Your task to perform on an android device: Clear the shopping cart on walmart.com. Add "logitech g910" to the cart on walmart.com Image 0: 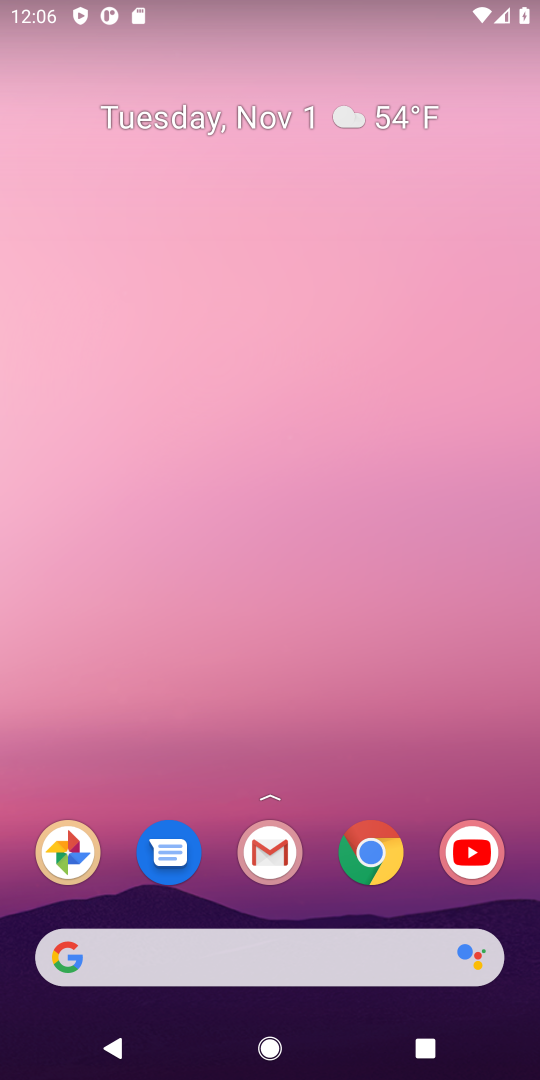
Step 0: click (374, 862)
Your task to perform on an android device: Clear the shopping cart on walmart.com. Add "logitech g910" to the cart on walmart.com Image 1: 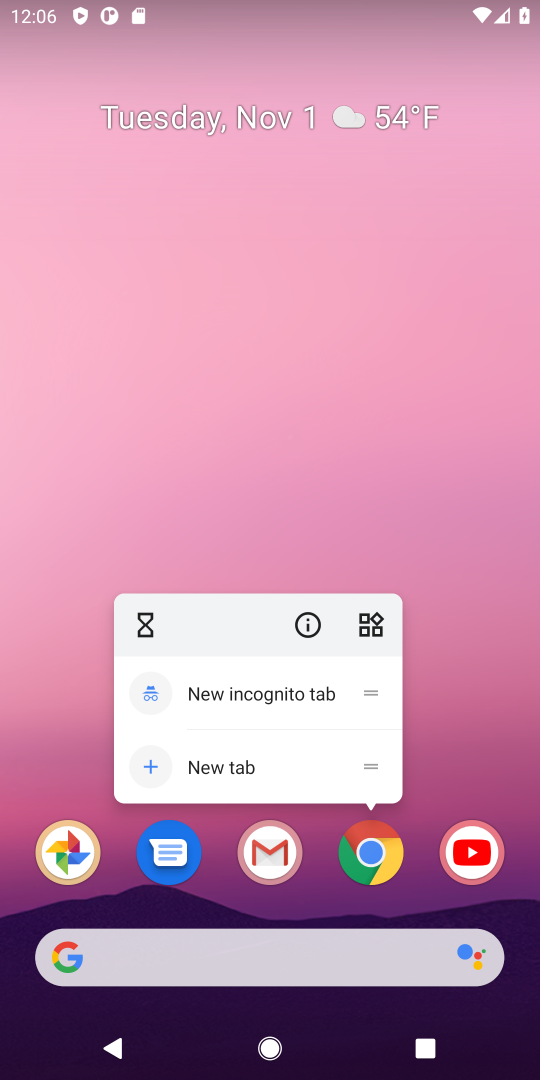
Step 1: click (379, 860)
Your task to perform on an android device: Clear the shopping cart on walmart.com. Add "logitech g910" to the cart on walmart.com Image 2: 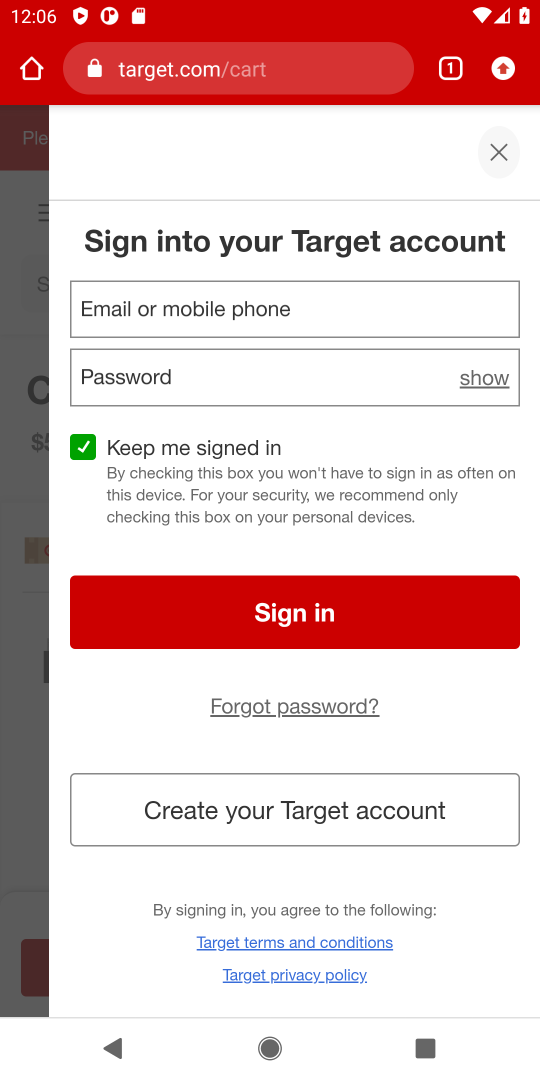
Step 2: click (224, 72)
Your task to perform on an android device: Clear the shopping cart on walmart.com. Add "logitech g910" to the cart on walmart.com Image 3: 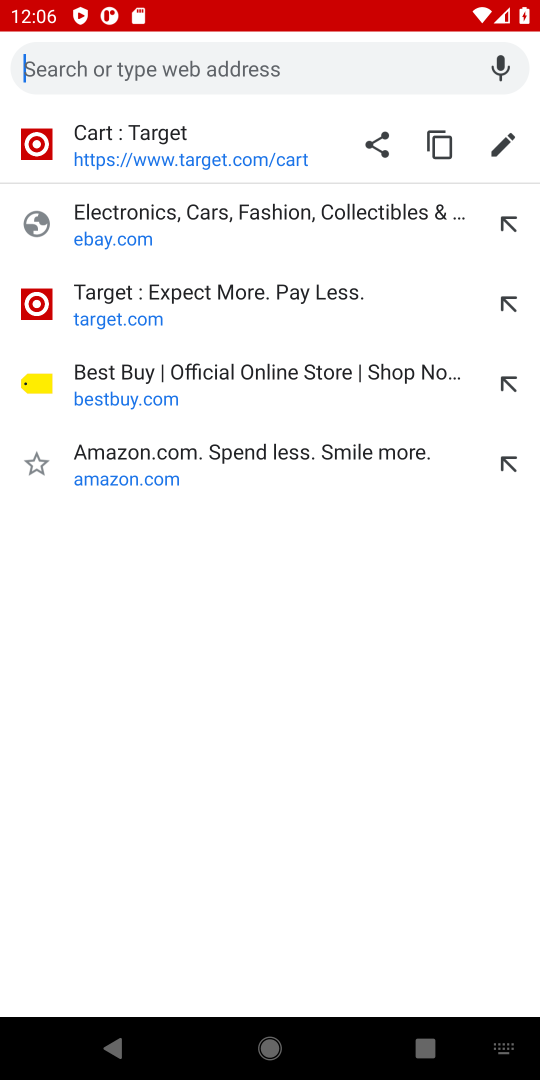
Step 3: type "walmart.com."
Your task to perform on an android device: Clear the shopping cart on walmart.com. Add "logitech g910" to the cart on walmart.com Image 4: 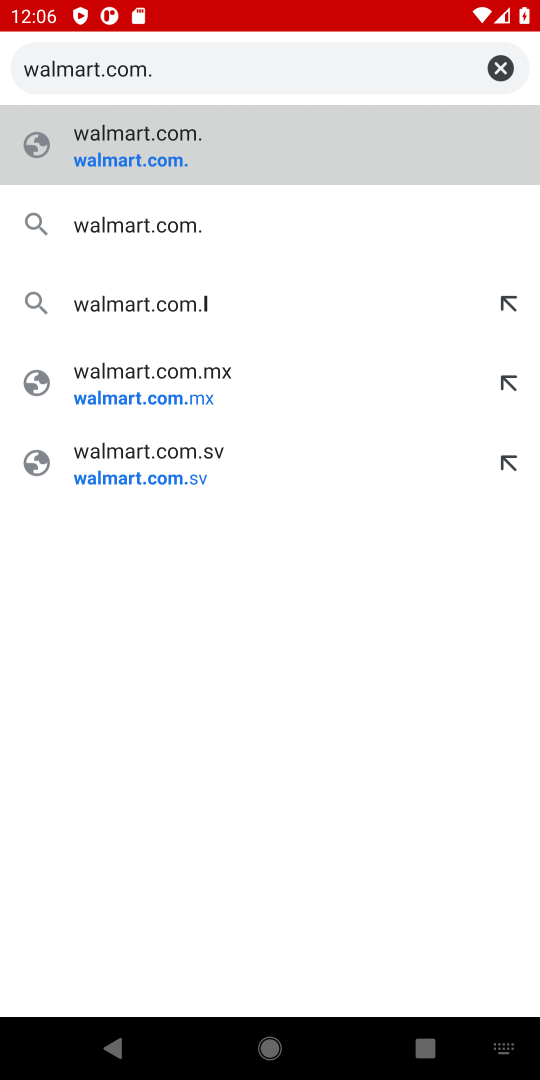
Step 4: press enter
Your task to perform on an android device: Clear the shopping cart on walmart.com. Add "logitech g910" to the cart on walmart.com Image 5: 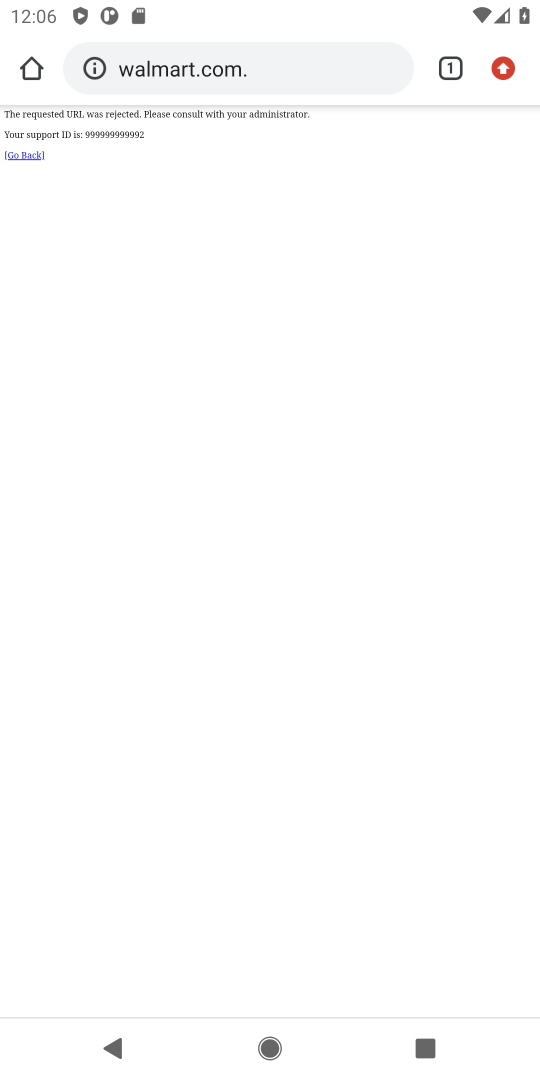
Step 5: click (320, 76)
Your task to perform on an android device: Clear the shopping cart on walmart.com. Add "logitech g910" to the cart on walmart.com Image 6: 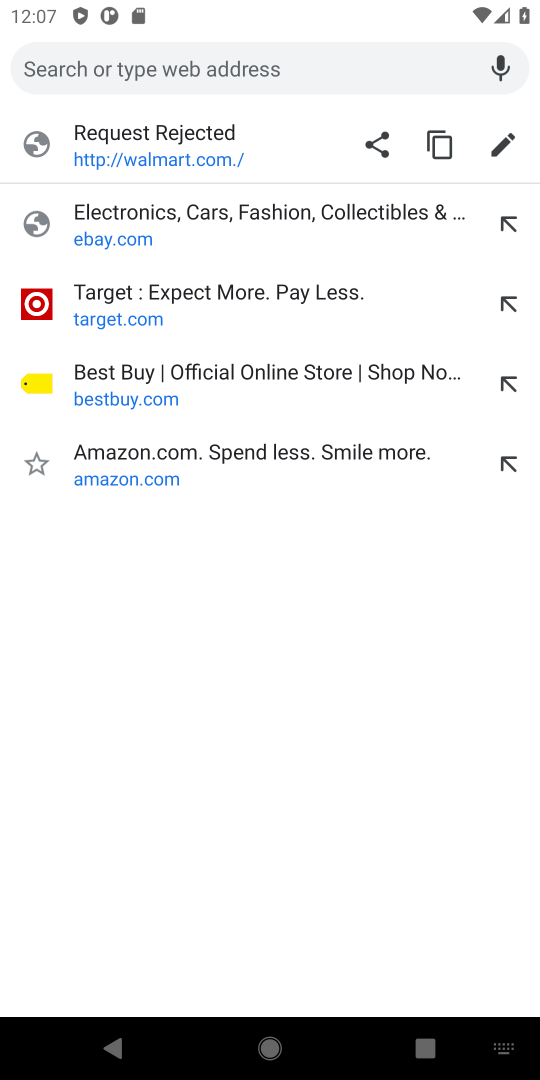
Step 6: type "walmart.com"
Your task to perform on an android device: Clear the shopping cart on walmart.com. Add "logitech g910" to the cart on walmart.com Image 7: 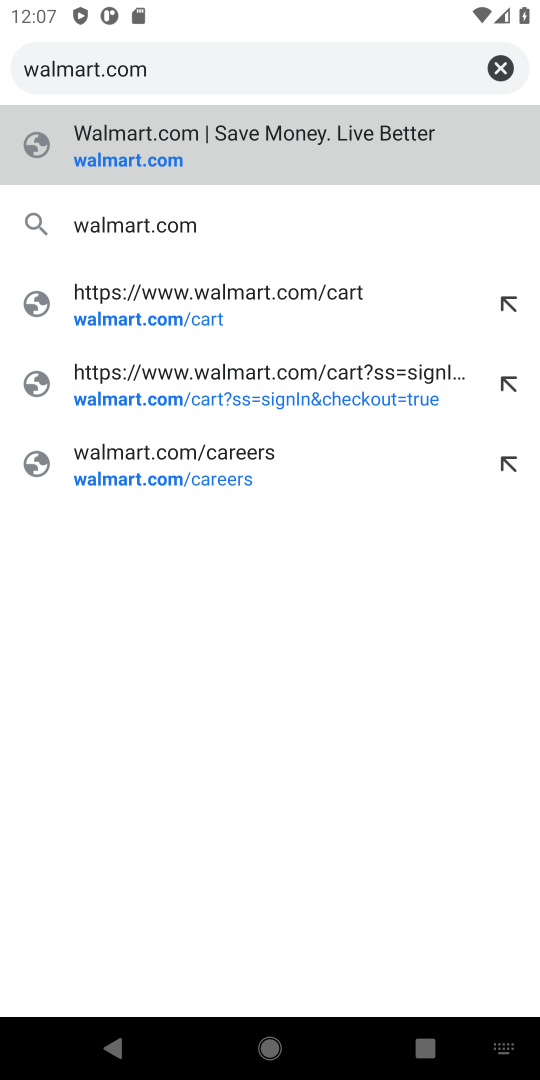
Step 7: press enter
Your task to perform on an android device: Clear the shopping cart on walmart.com. Add "logitech g910" to the cart on walmart.com Image 8: 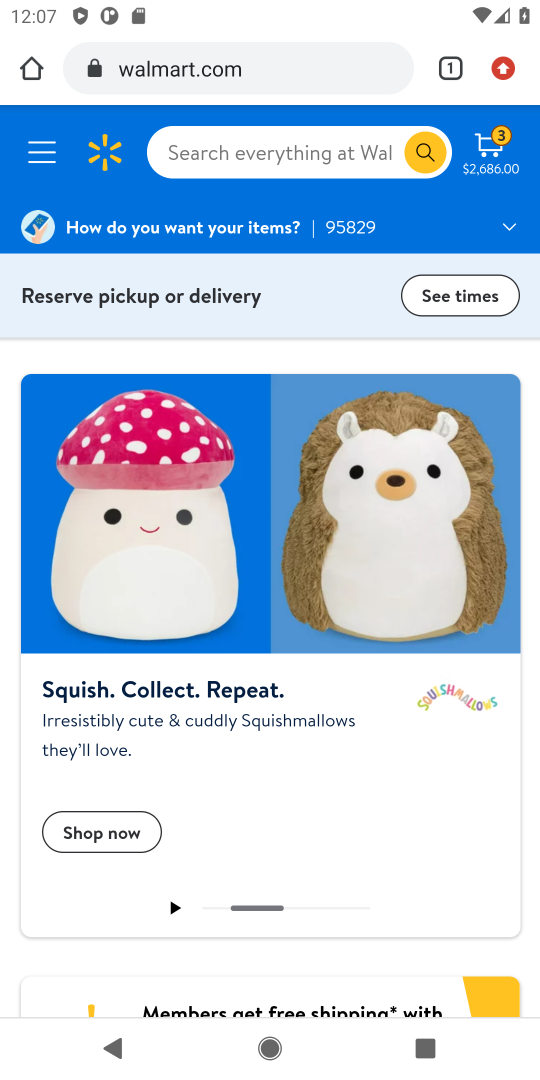
Step 8: click (492, 149)
Your task to perform on an android device: Clear the shopping cart on walmart.com. Add "logitech g910" to the cart on walmart.com Image 9: 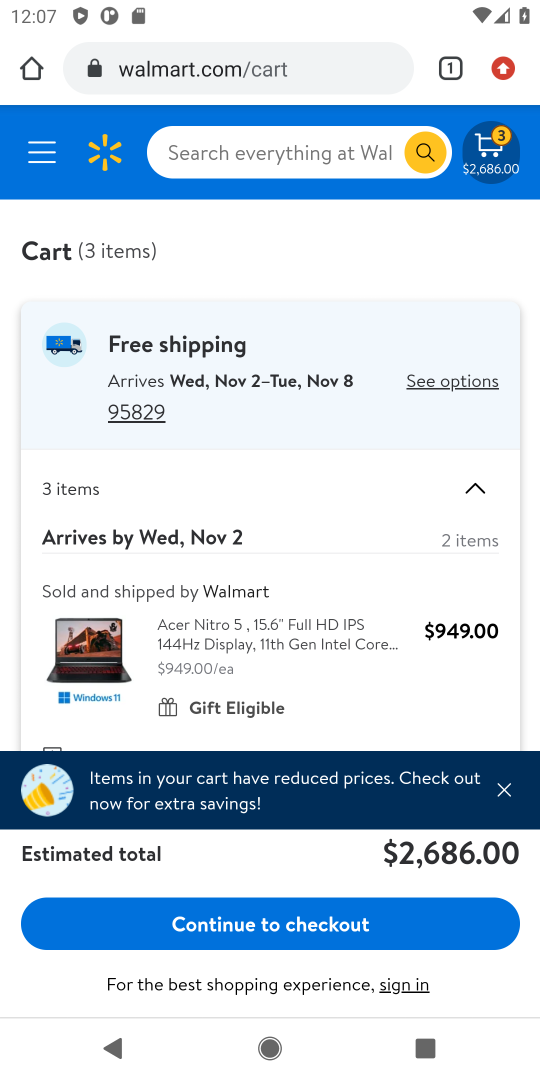
Step 9: drag from (363, 667) to (357, 221)
Your task to perform on an android device: Clear the shopping cart on walmart.com. Add "logitech g910" to the cart on walmart.com Image 10: 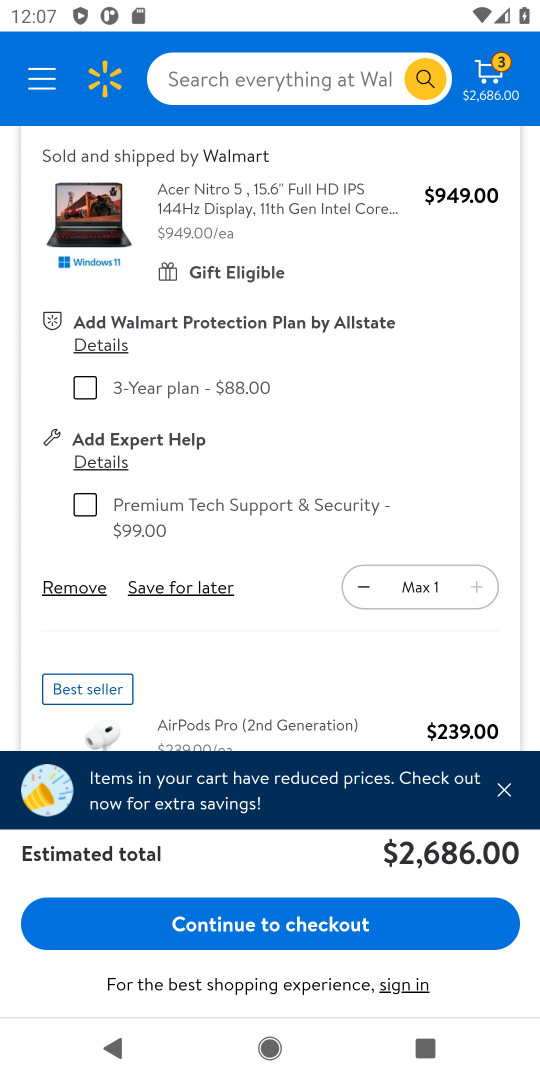
Step 10: click (85, 593)
Your task to perform on an android device: Clear the shopping cart on walmart.com. Add "logitech g910" to the cart on walmart.com Image 11: 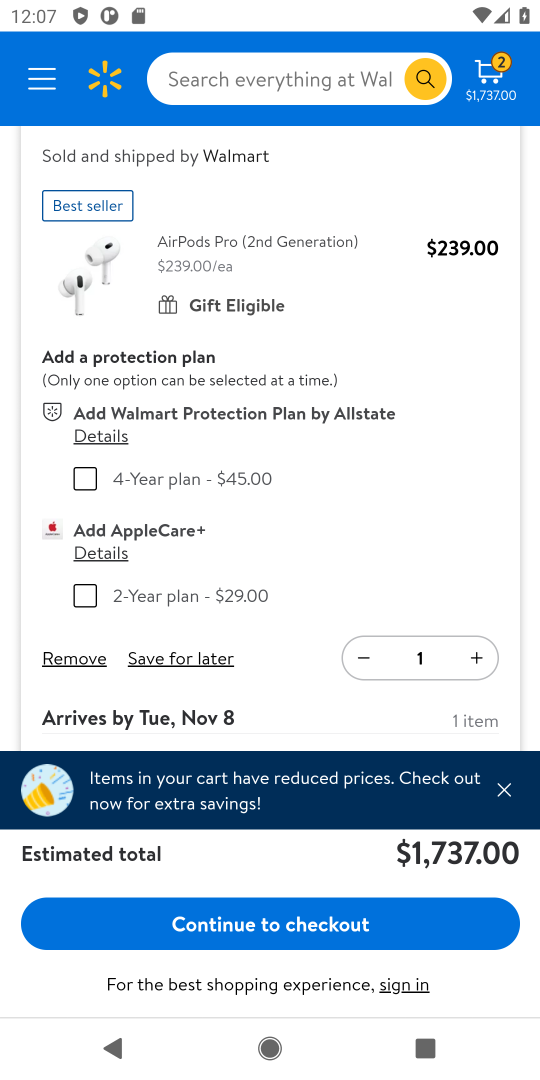
Step 11: click (81, 666)
Your task to perform on an android device: Clear the shopping cart on walmart.com. Add "logitech g910" to the cart on walmart.com Image 12: 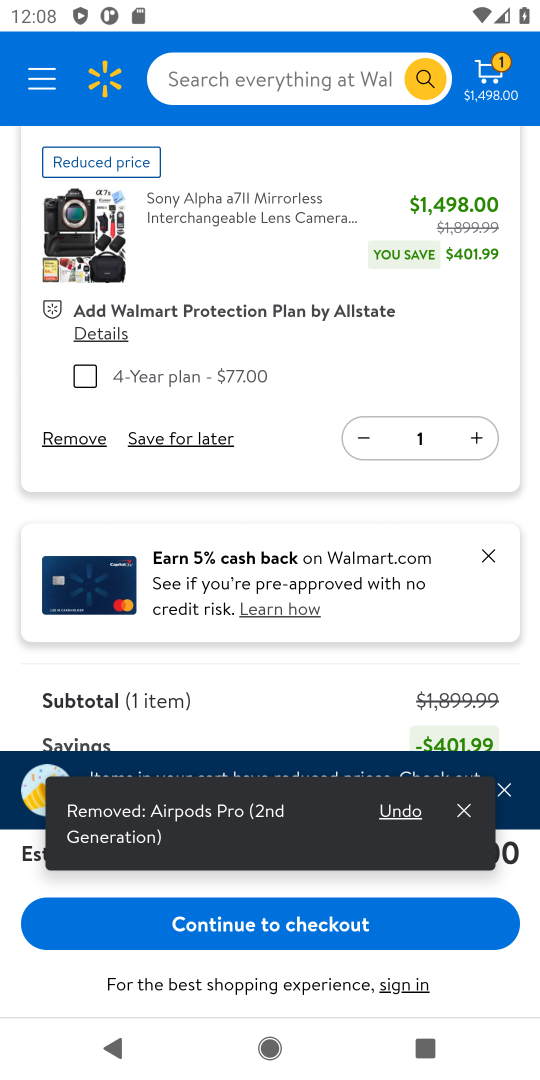
Step 12: click (78, 440)
Your task to perform on an android device: Clear the shopping cart on walmart.com. Add "logitech g910" to the cart on walmart.com Image 13: 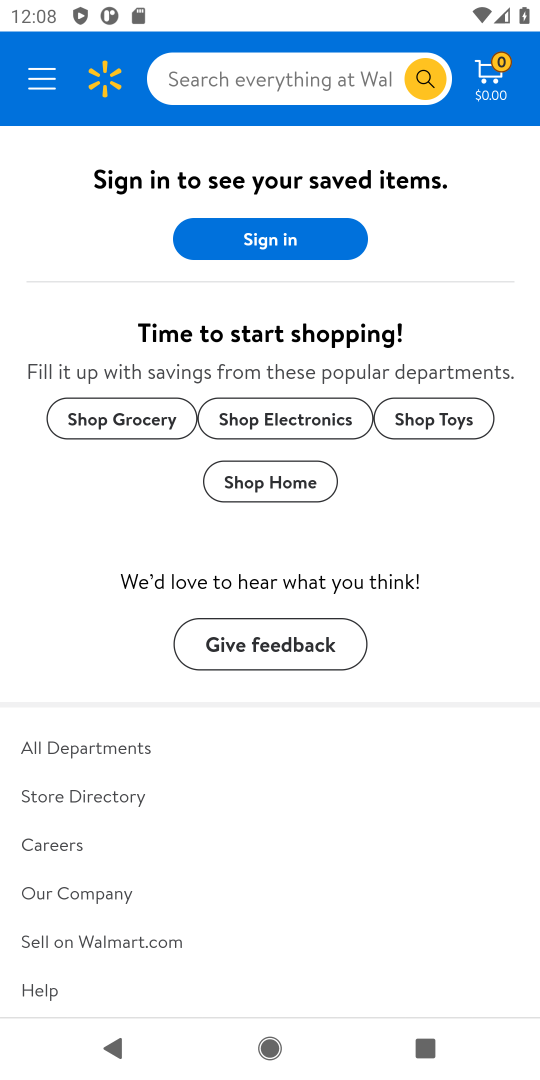
Step 13: click (301, 83)
Your task to perform on an android device: Clear the shopping cart on walmart.com. Add "logitech g910" to the cart on walmart.com Image 14: 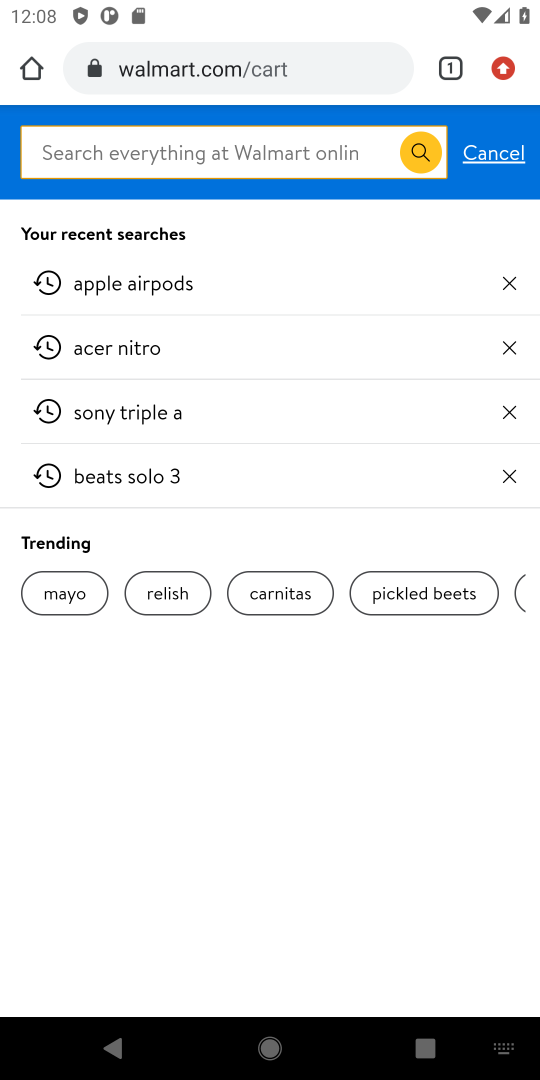
Step 14: type "logitech g910"
Your task to perform on an android device: Clear the shopping cart on walmart.com. Add "logitech g910" to the cart on walmart.com Image 15: 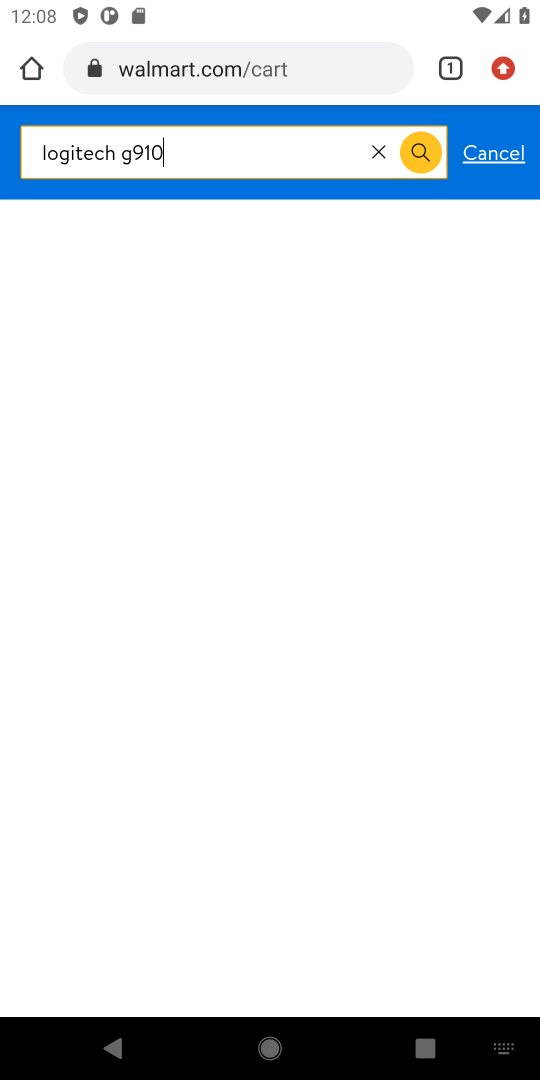
Step 15: type ""
Your task to perform on an android device: Clear the shopping cart on walmart.com. Add "logitech g910" to the cart on walmart.com Image 16: 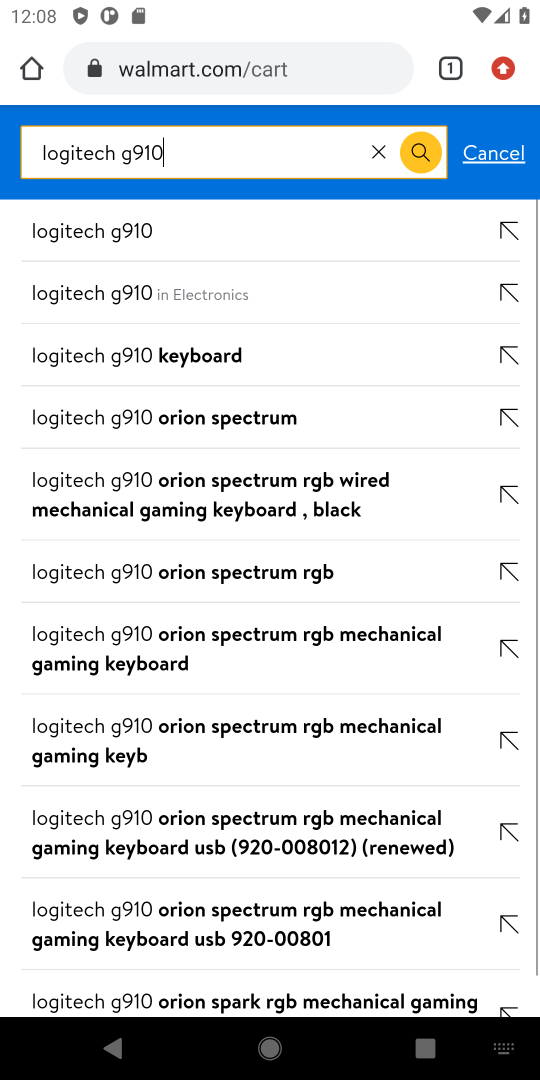
Step 16: press enter
Your task to perform on an android device: Clear the shopping cart on walmart.com. Add "logitech g910" to the cart on walmart.com Image 17: 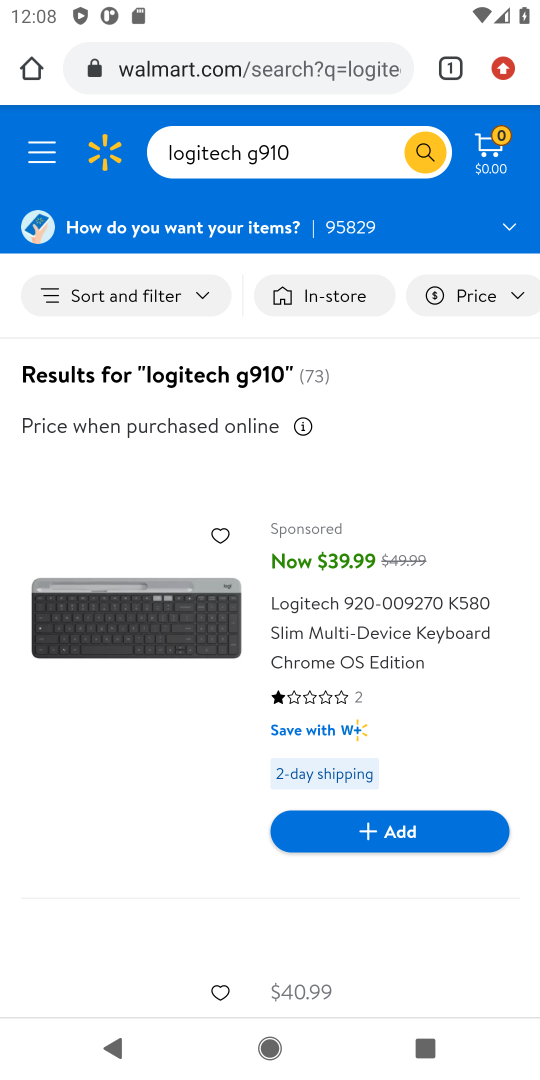
Step 17: click (417, 838)
Your task to perform on an android device: Clear the shopping cart on walmart.com. Add "logitech g910" to the cart on walmart.com Image 18: 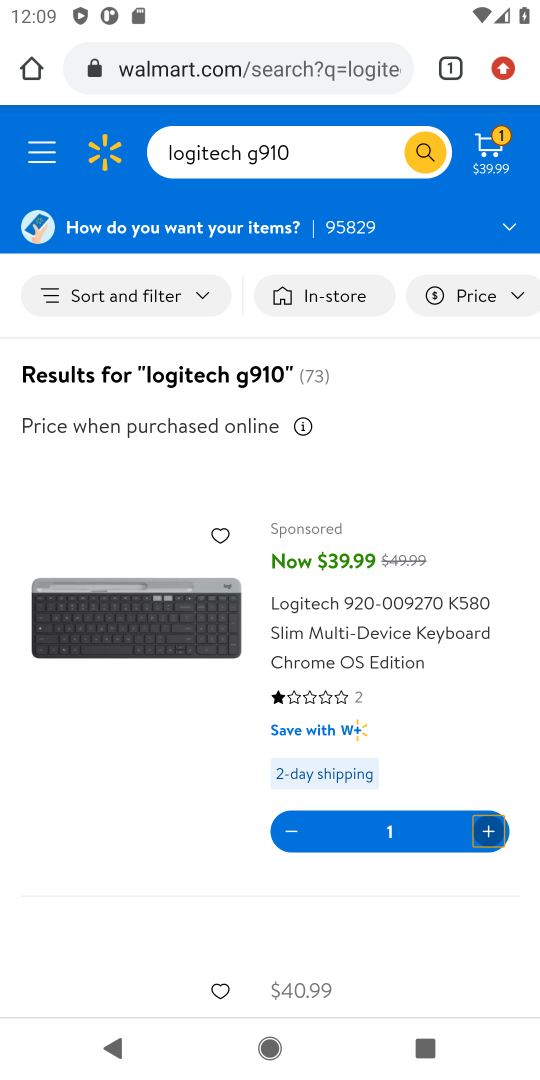
Step 18: click (496, 147)
Your task to perform on an android device: Clear the shopping cart on walmart.com. Add "logitech g910" to the cart on walmart.com Image 19: 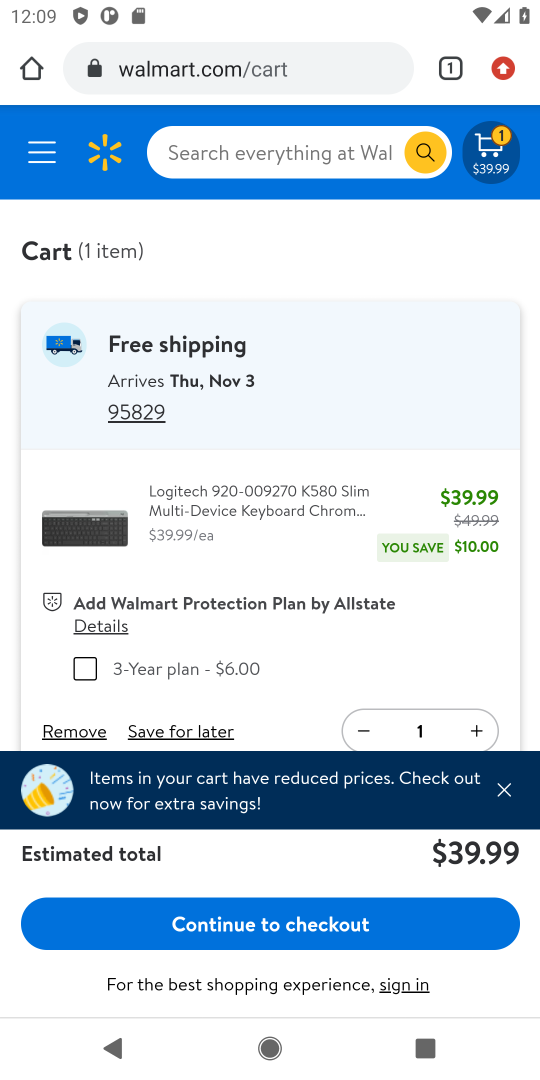
Step 19: click (329, 922)
Your task to perform on an android device: Clear the shopping cart on walmart.com. Add "logitech g910" to the cart on walmart.com Image 20: 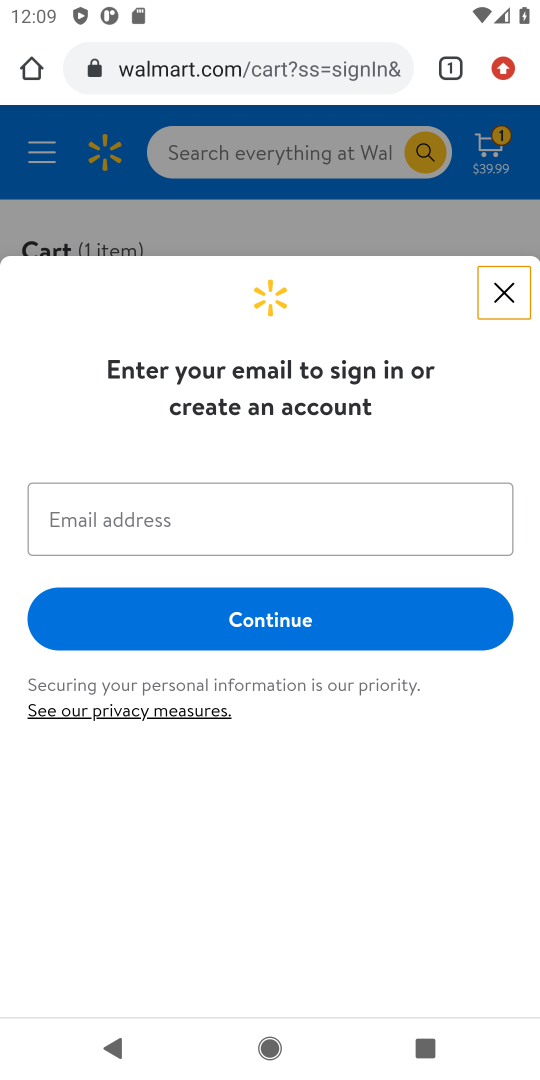
Step 20: click (501, 295)
Your task to perform on an android device: Clear the shopping cart on walmart.com. Add "logitech g910" to the cart on walmart.com Image 21: 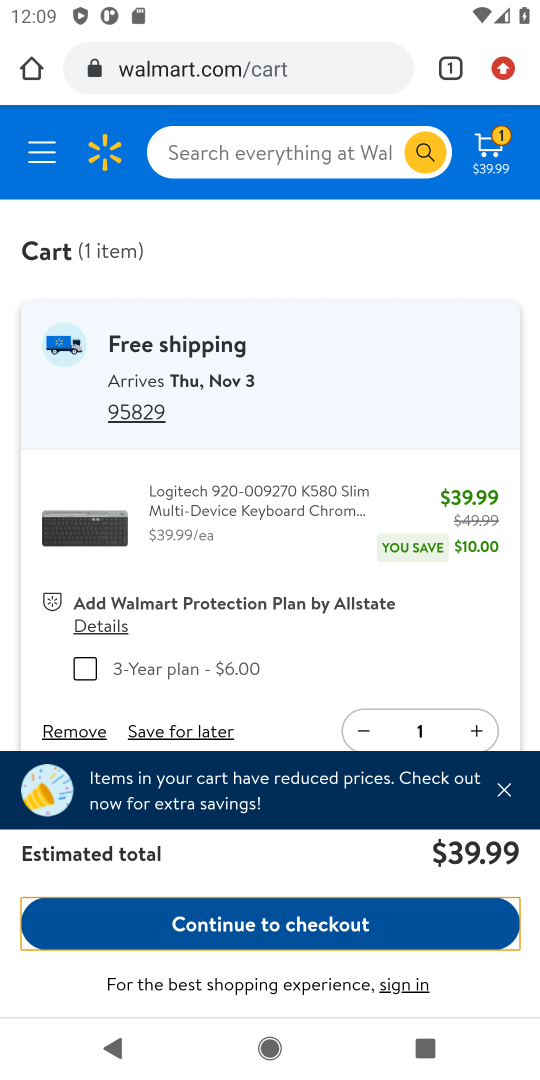
Step 21: click (311, 931)
Your task to perform on an android device: Clear the shopping cart on walmart.com. Add "logitech g910" to the cart on walmart.com Image 22: 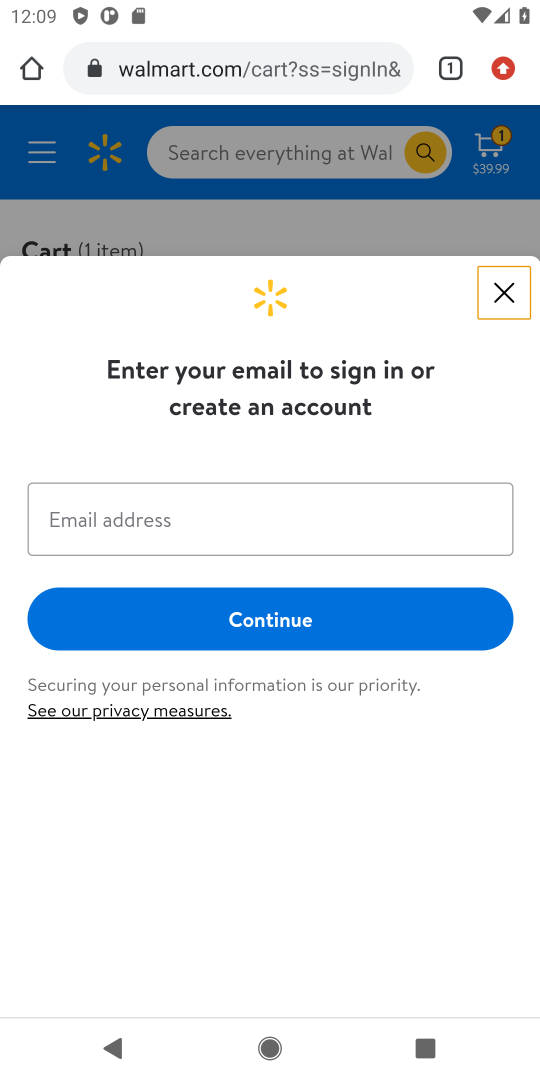
Step 22: click (483, 298)
Your task to perform on an android device: Clear the shopping cart on walmart.com. Add "logitech g910" to the cart on walmart.com Image 23: 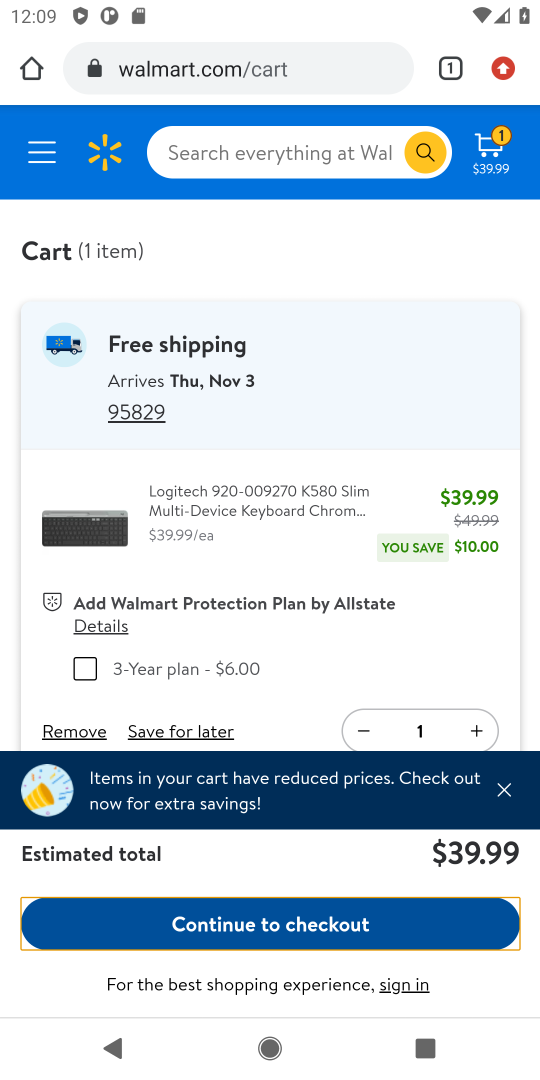
Step 23: task complete